Your task to perform on an android device: Open Google Image 0: 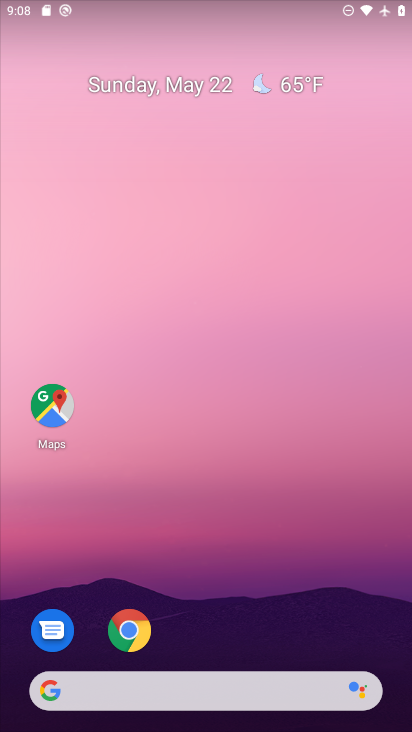
Step 0: press home button
Your task to perform on an android device: Open Google Image 1: 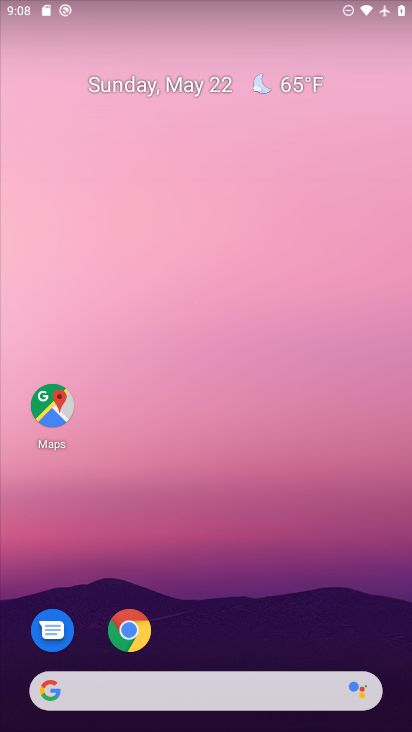
Step 1: drag from (87, 690) to (259, 227)
Your task to perform on an android device: Open Google Image 2: 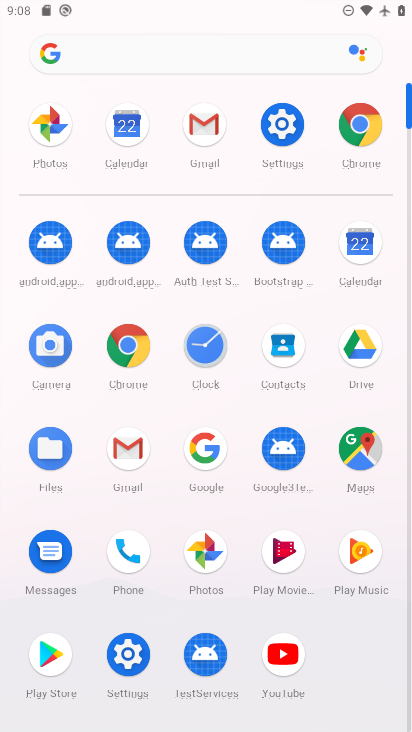
Step 2: click (212, 453)
Your task to perform on an android device: Open Google Image 3: 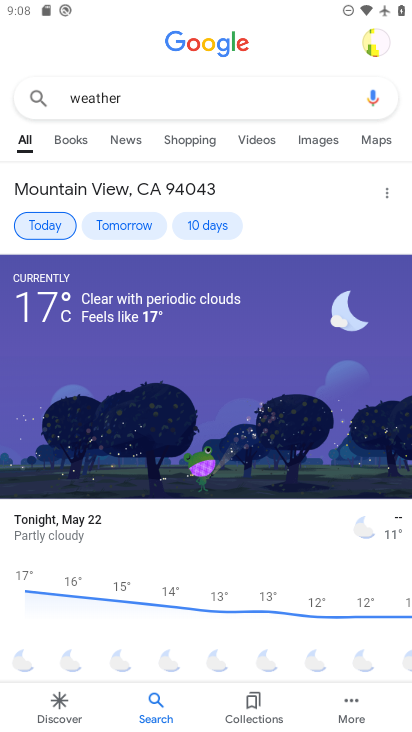
Step 3: click (65, 713)
Your task to perform on an android device: Open Google Image 4: 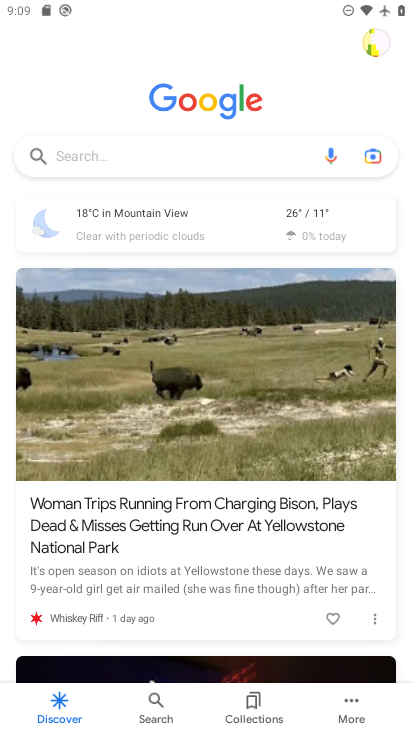
Step 4: task complete